Your task to perform on an android device: turn off location Image 0: 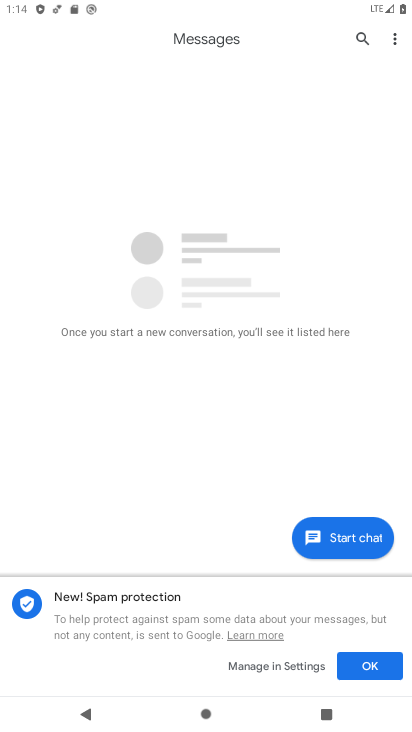
Step 0: press home button
Your task to perform on an android device: turn off location Image 1: 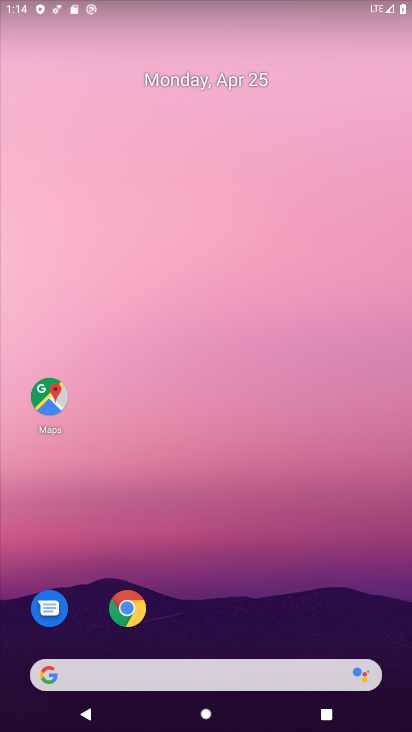
Step 1: drag from (234, 677) to (234, 260)
Your task to perform on an android device: turn off location Image 2: 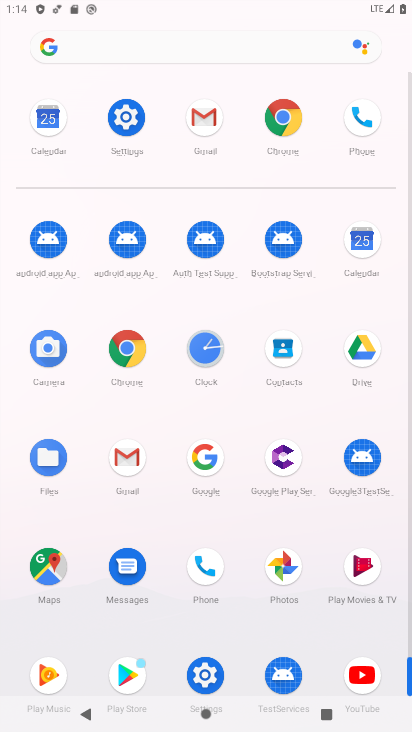
Step 2: click (131, 123)
Your task to perform on an android device: turn off location Image 3: 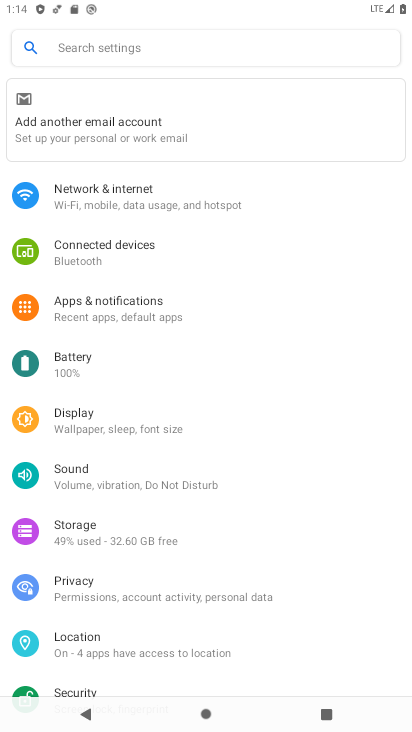
Step 3: click (168, 642)
Your task to perform on an android device: turn off location Image 4: 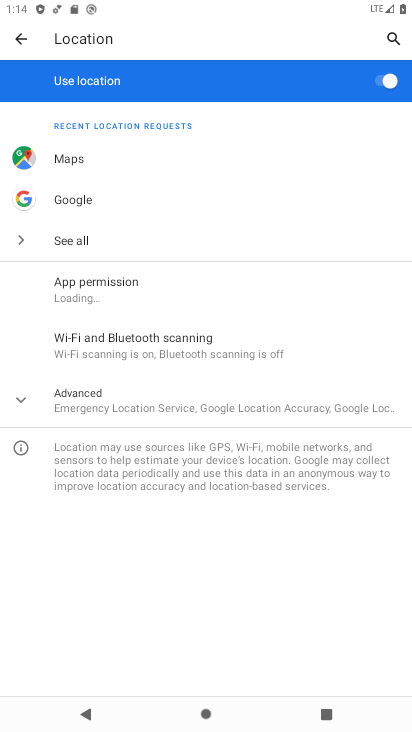
Step 4: click (390, 82)
Your task to perform on an android device: turn off location Image 5: 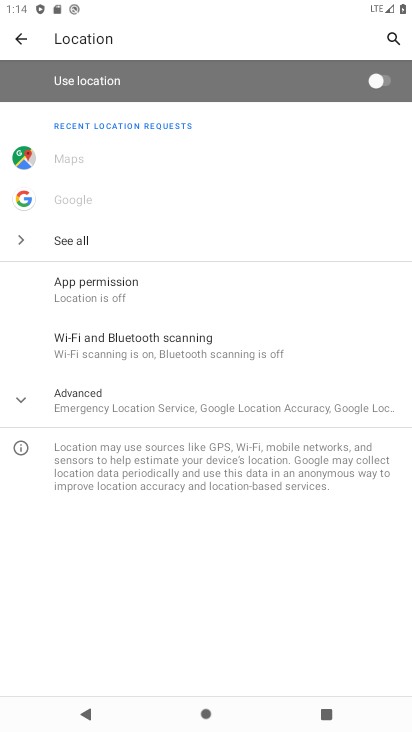
Step 5: task complete